Your task to perform on an android device: Open Google Chrome Image 0: 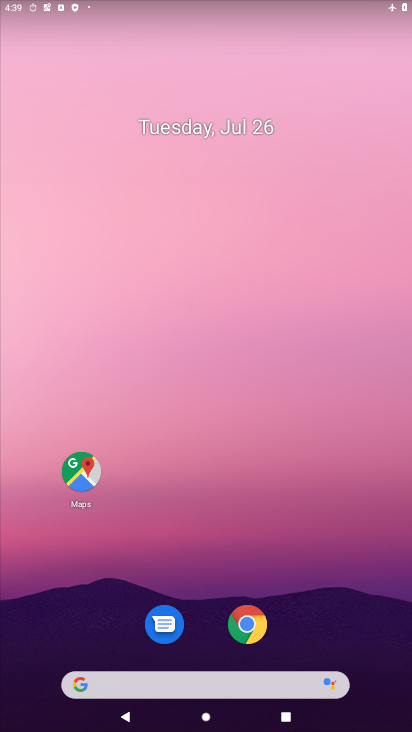
Step 0: drag from (222, 661) to (264, 4)
Your task to perform on an android device: Open Google Chrome Image 1: 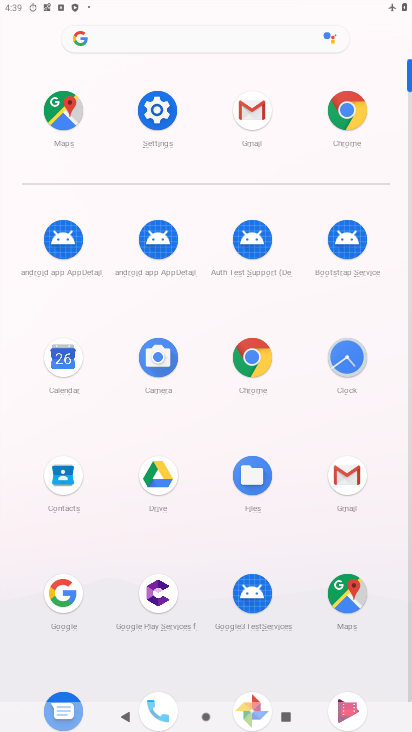
Step 1: click (256, 370)
Your task to perform on an android device: Open Google Chrome Image 2: 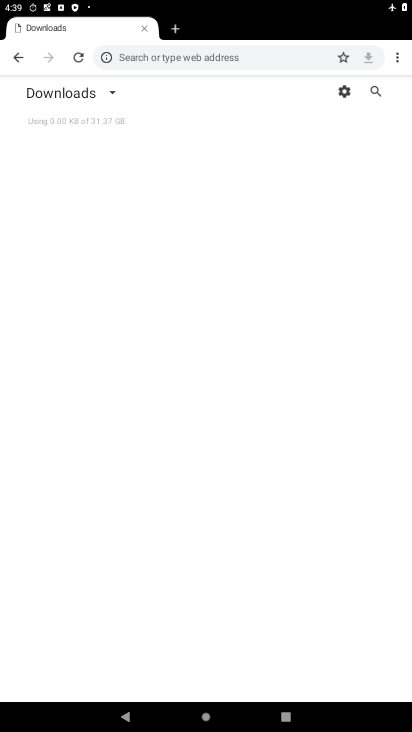
Step 2: task complete